Your task to perform on an android device: empty trash in the gmail app Image 0: 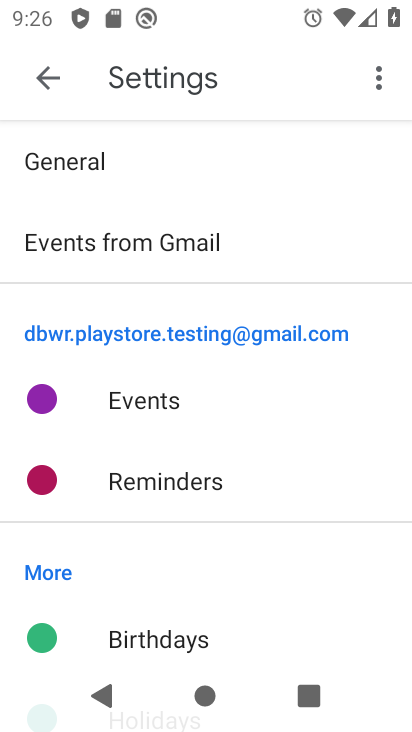
Step 0: press home button
Your task to perform on an android device: empty trash in the gmail app Image 1: 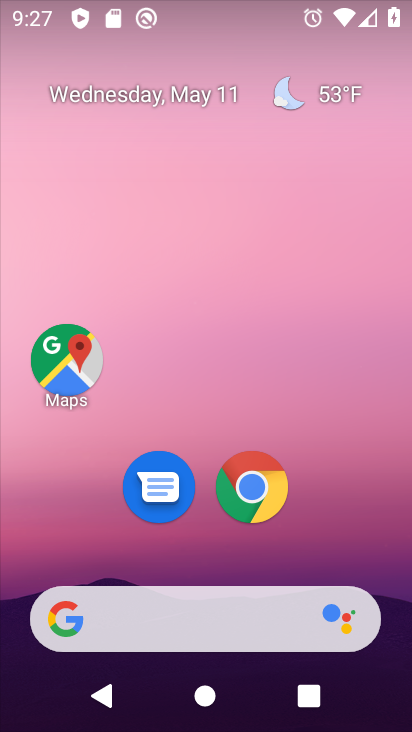
Step 1: drag from (200, 561) to (167, 214)
Your task to perform on an android device: empty trash in the gmail app Image 2: 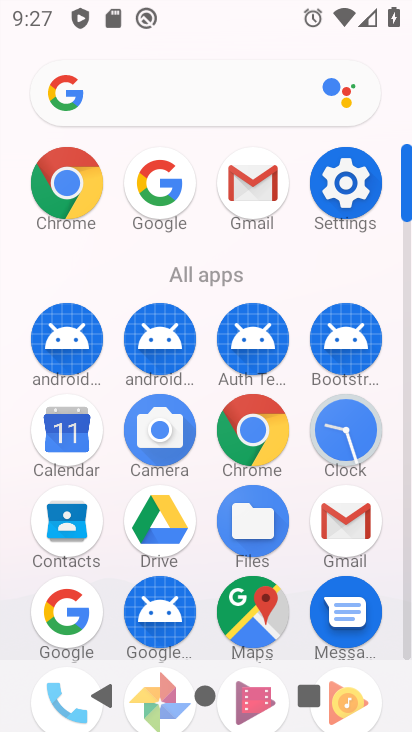
Step 2: click (350, 542)
Your task to perform on an android device: empty trash in the gmail app Image 3: 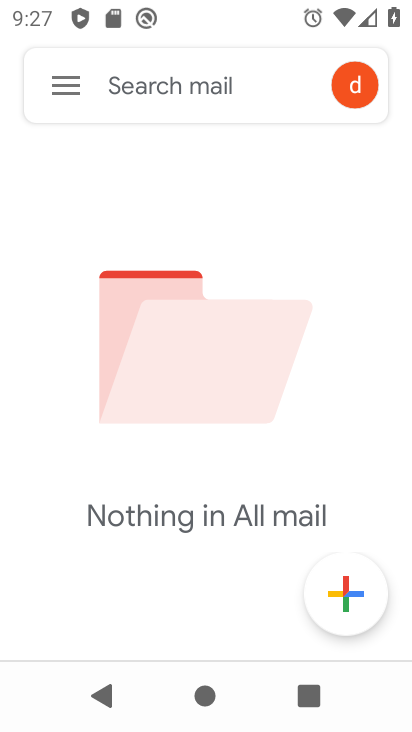
Step 3: click (67, 99)
Your task to perform on an android device: empty trash in the gmail app Image 4: 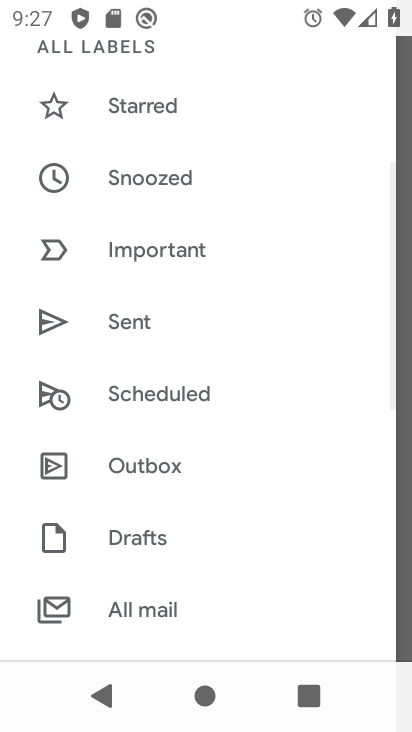
Step 4: drag from (177, 544) to (207, 161)
Your task to perform on an android device: empty trash in the gmail app Image 5: 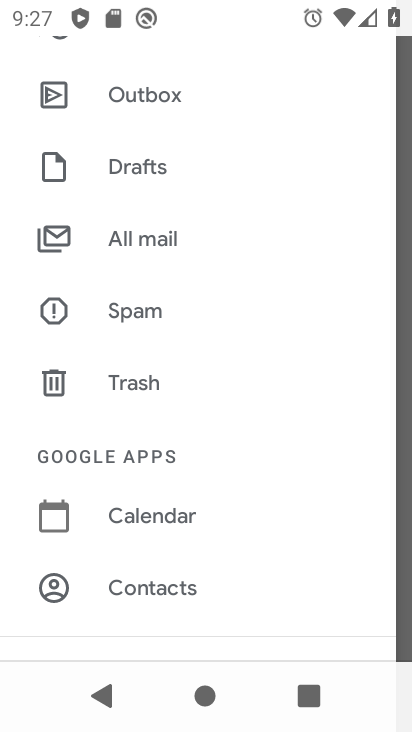
Step 5: click (179, 381)
Your task to perform on an android device: empty trash in the gmail app Image 6: 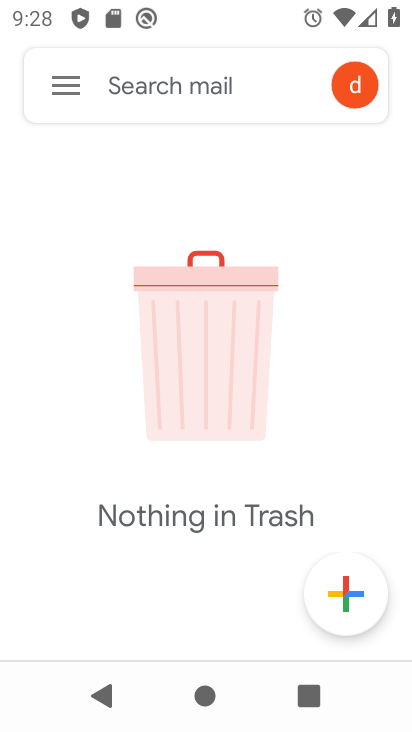
Step 6: task complete